Your task to perform on an android device: Turn off the flashlight Image 0: 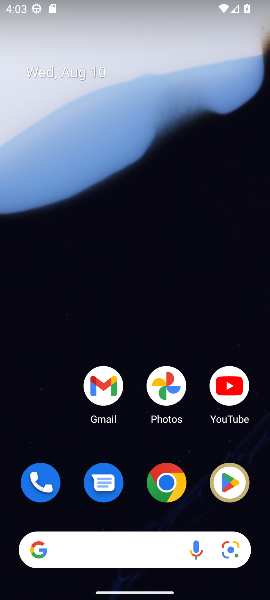
Step 0: drag from (73, 427) to (114, 85)
Your task to perform on an android device: Turn off the flashlight Image 1: 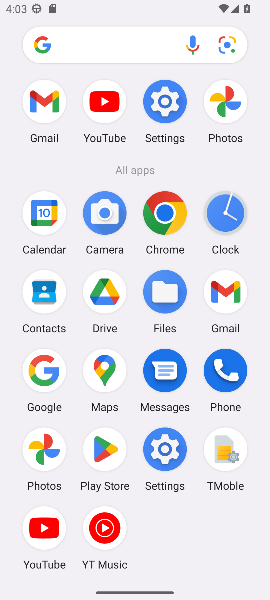
Step 1: click (160, 97)
Your task to perform on an android device: Turn off the flashlight Image 2: 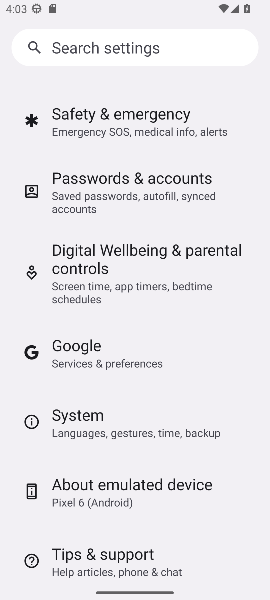
Step 2: click (168, 42)
Your task to perform on an android device: Turn off the flashlight Image 3: 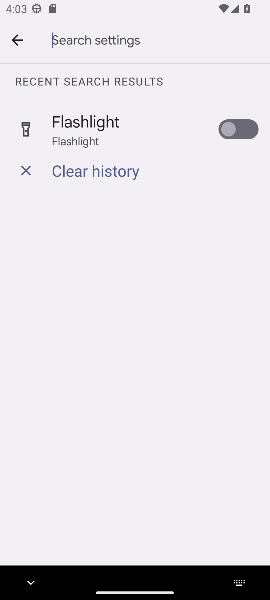
Step 3: task complete